Your task to perform on an android device: turn notification dots off Image 0: 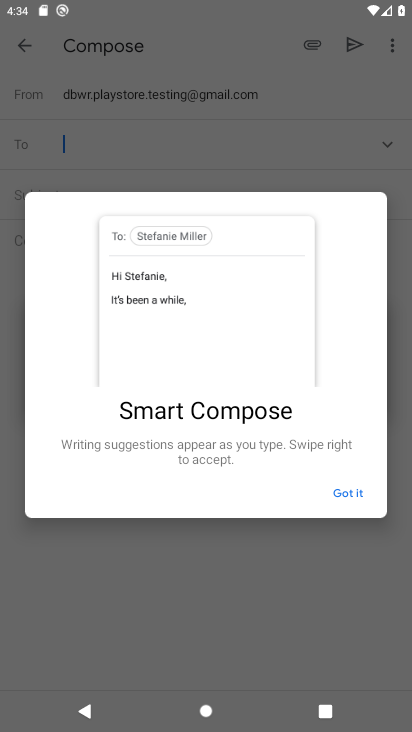
Step 0: press home button
Your task to perform on an android device: turn notification dots off Image 1: 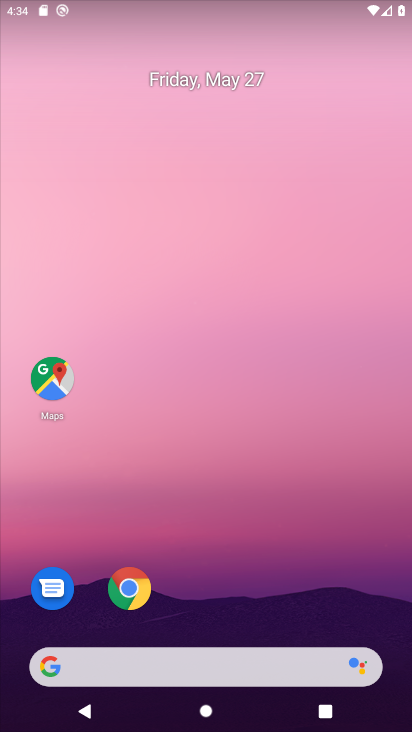
Step 1: drag from (208, 639) to (308, 78)
Your task to perform on an android device: turn notification dots off Image 2: 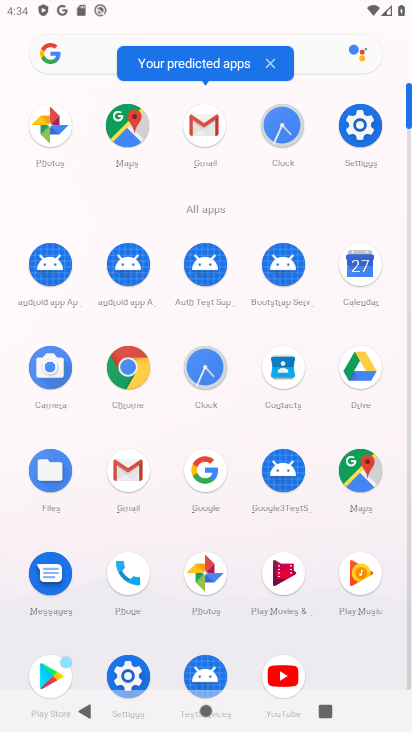
Step 2: click (117, 680)
Your task to perform on an android device: turn notification dots off Image 3: 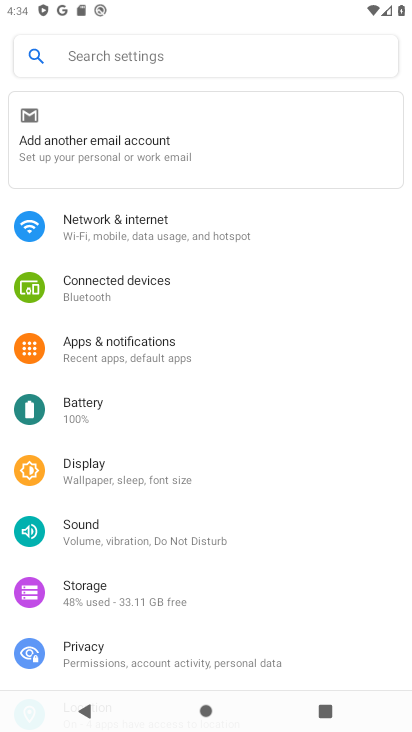
Step 3: click (167, 375)
Your task to perform on an android device: turn notification dots off Image 4: 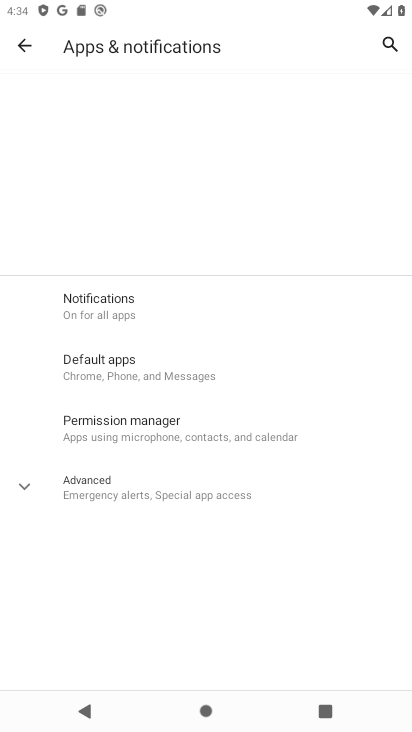
Step 4: click (158, 307)
Your task to perform on an android device: turn notification dots off Image 5: 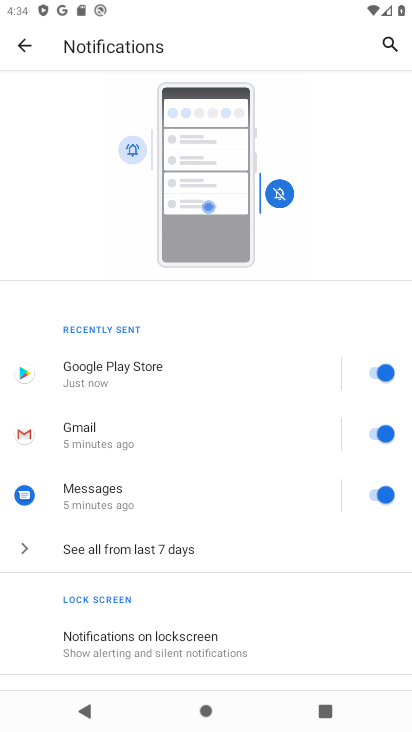
Step 5: drag from (126, 646) to (256, 167)
Your task to perform on an android device: turn notification dots off Image 6: 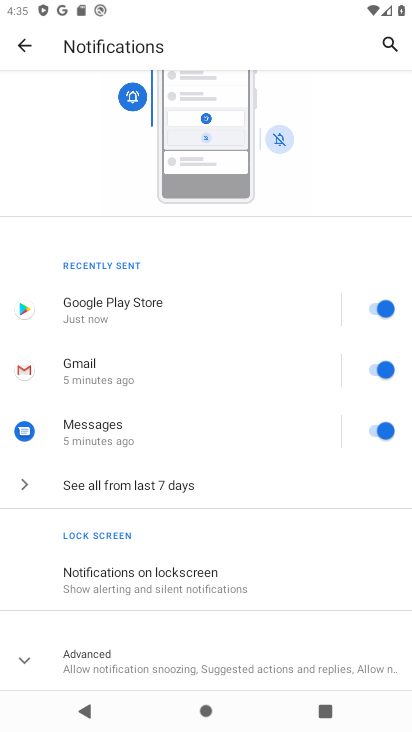
Step 6: click (181, 668)
Your task to perform on an android device: turn notification dots off Image 7: 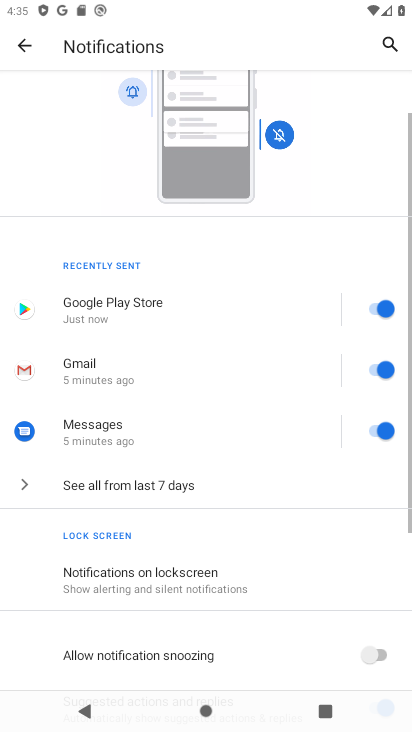
Step 7: drag from (195, 559) to (259, 334)
Your task to perform on an android device: turn notification dots off Image 8: 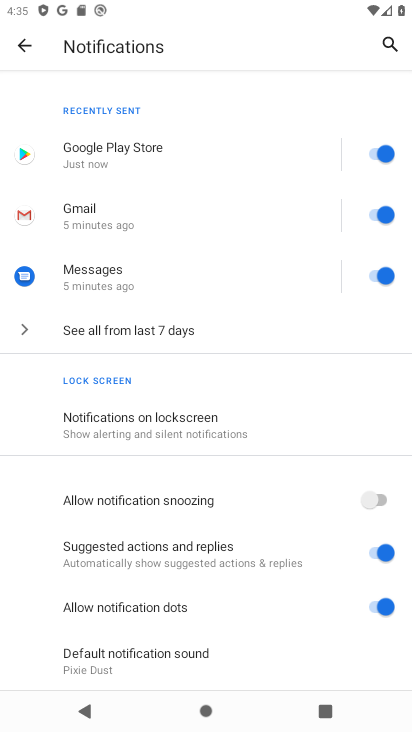
Step 8: click (374, 613)
Your task to perform on an android device: turn notification dots off Image 9: 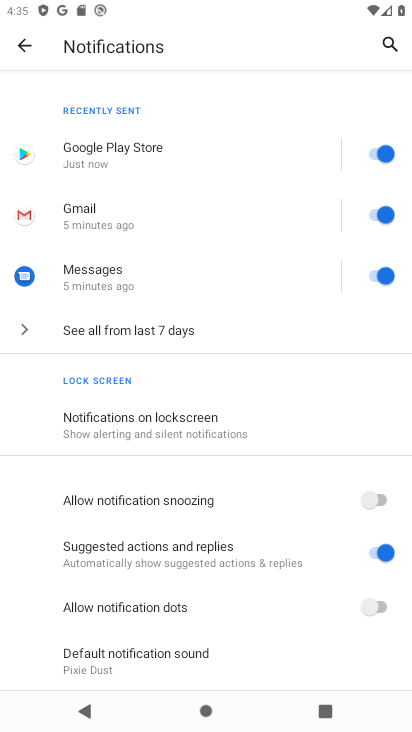
Step 9: task complete